Your task to perform on an android device: Search for Mexican restaurants on Maps Image 0: 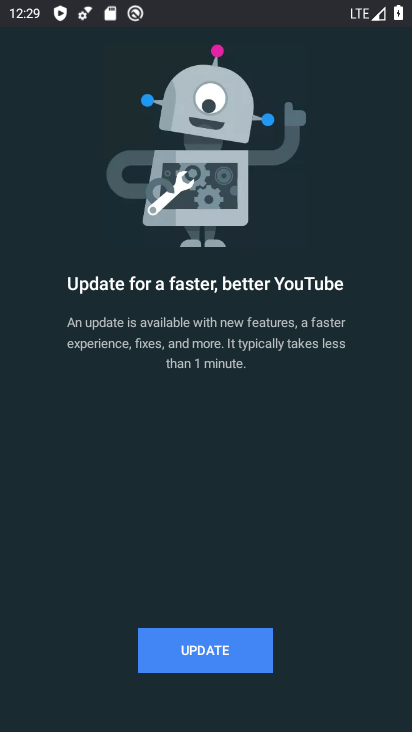
Step 0: press home button
Your task to perform on an android device: Search for Mexican restaurants on Maps Image 1: 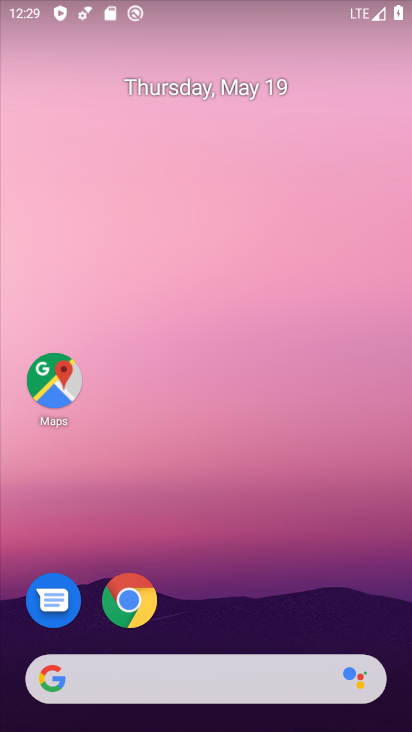
Step 1: click (48, 362)
Your task to perform on an android device: Search for Mexican restaurants on Maps Image 2: 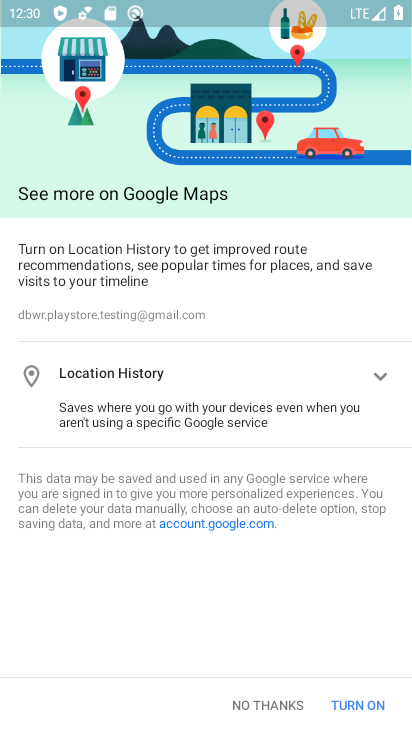
Step 2: click (267, 699)
Your task to perform on an android device: Search for Mexican restaurants on Maps Image 3: 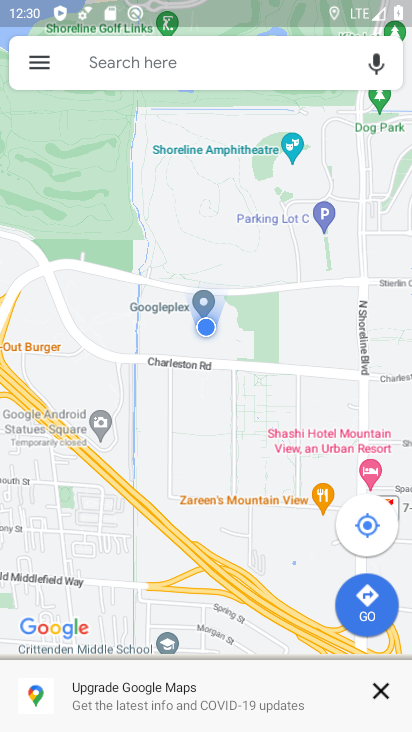
Step 3: click (35, 52)
Your task to perform on an android device: Search for Mexican restaurants on Maps Image 4: 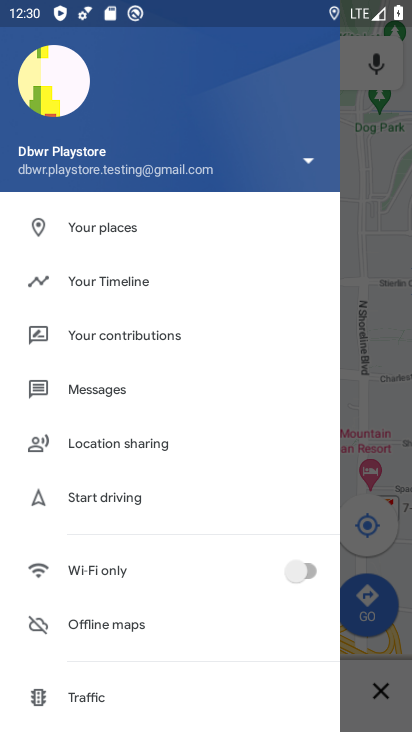
Step 4: click (381, 227)
Your task to perform on an android device: Search for Mexican restaurants on Maps Image 5: 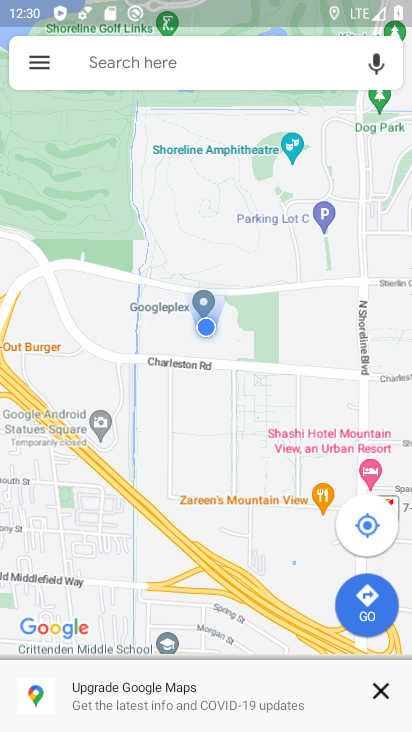
Step 5: click (146, 56)
Your task to perform on an android device: Search for Mexican restaurants on Maps Image 6: 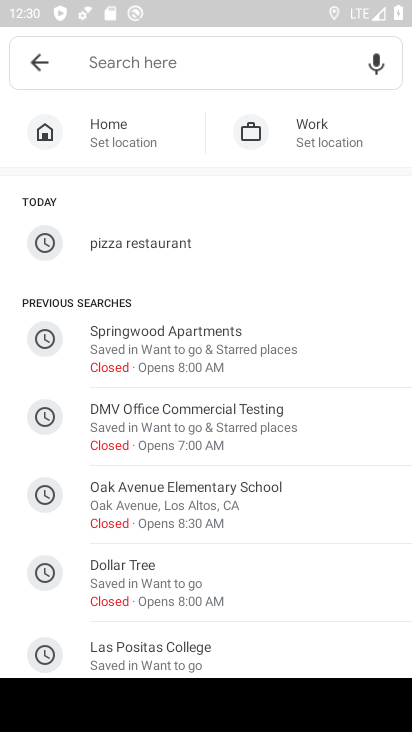
Step 6: type "mexican"
Your task to perform on an android device: Search for Mexican restaurants on Maps Image 7: 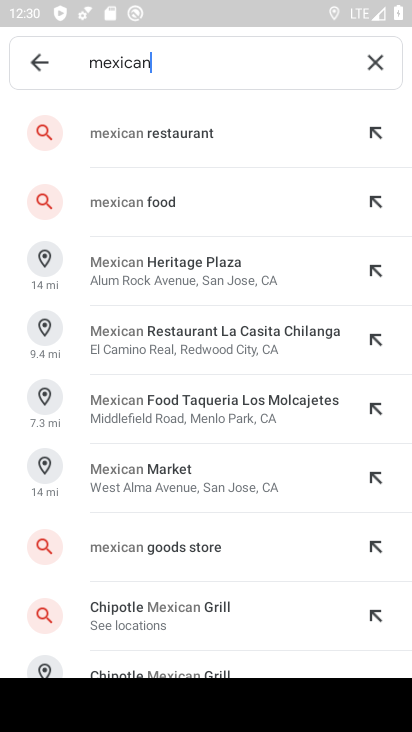
Step 7: click (151, 126)
Your task to perform on an android device: Search for Mexican restaurants on Maps Image 8: 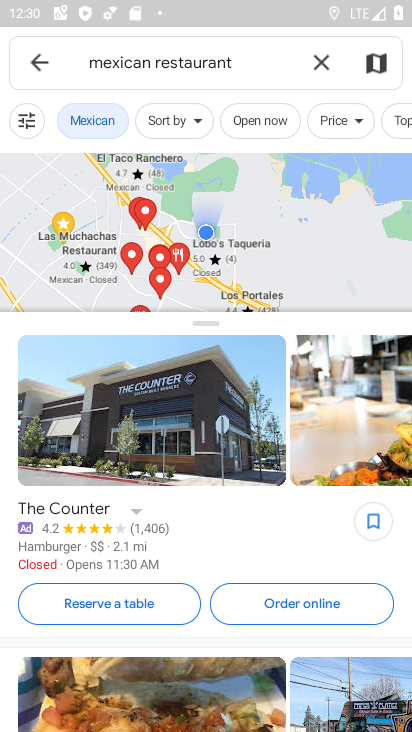
Step 8: task complete